Your task to perform on an android device: move an email to a new category in the gmail app Image 0: 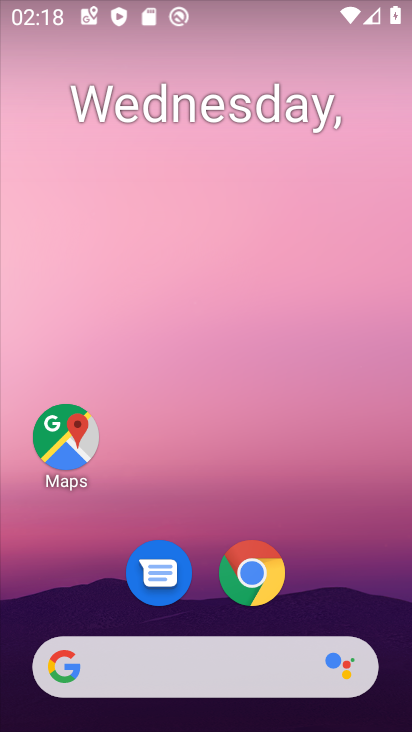
Step 0: drag from (319, 493) to (101, 4)
Your task to perform on an android device: move an email to a new category in the gmail app Image 1: 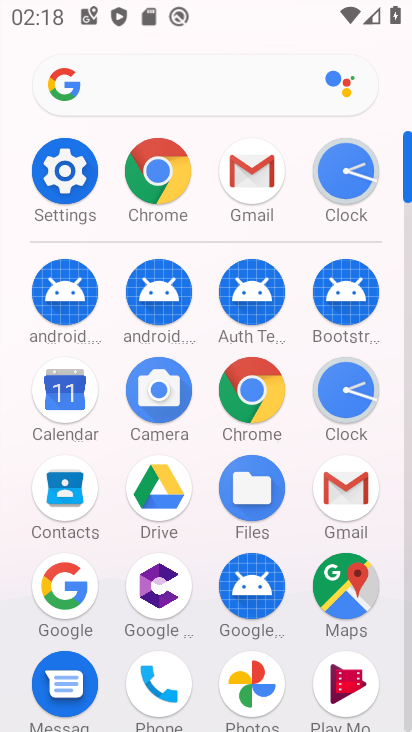
Step 1: click (251, 176)
Your task to perform on an android device: move an email to a new category in the gmail app Image 2: 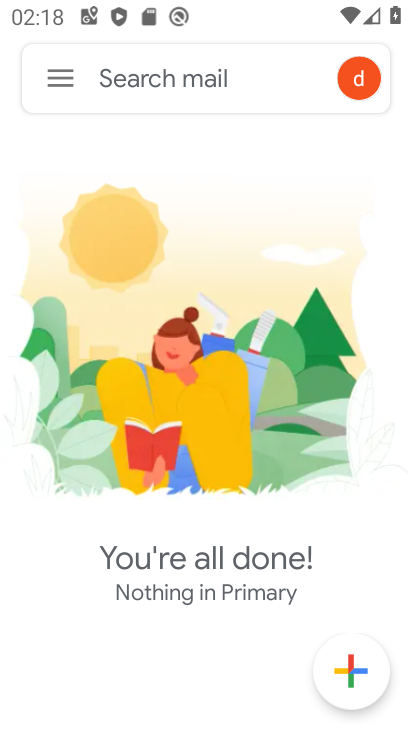
Step 2: click (61, 79)
Your task to perform on an android device: move an email to a new category in the gmail app Image 3: 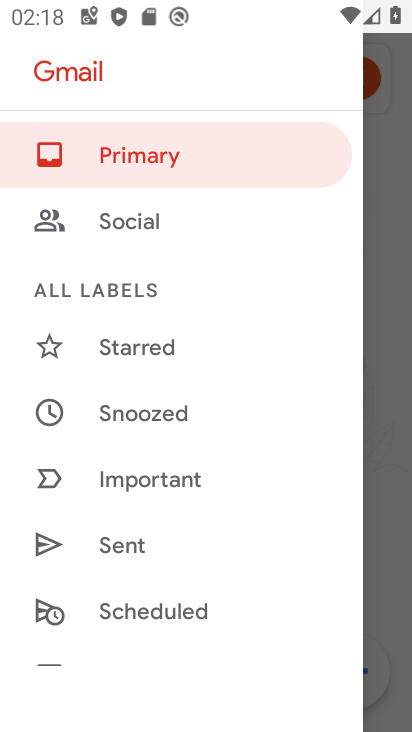
Step 3: drag from (175, 527) to (246, 347)
Your task to perform on an android device: move an email to a new category in the gmail app Image 4: 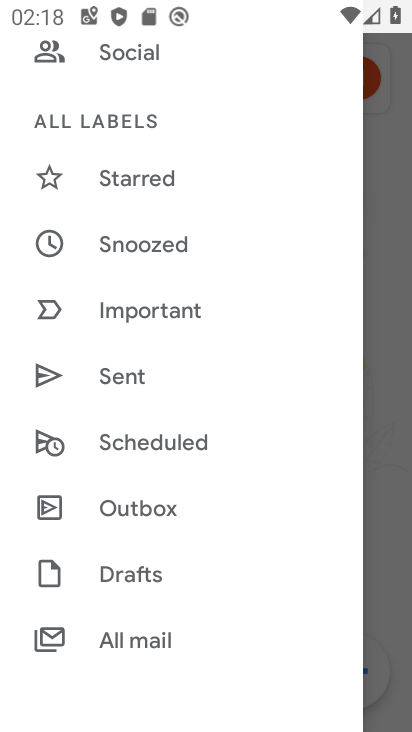
Step 4: drag from (163, 542) to (230, 386)
Your task to perform on an android device: move an email to a new category in the gmail app Image 5: 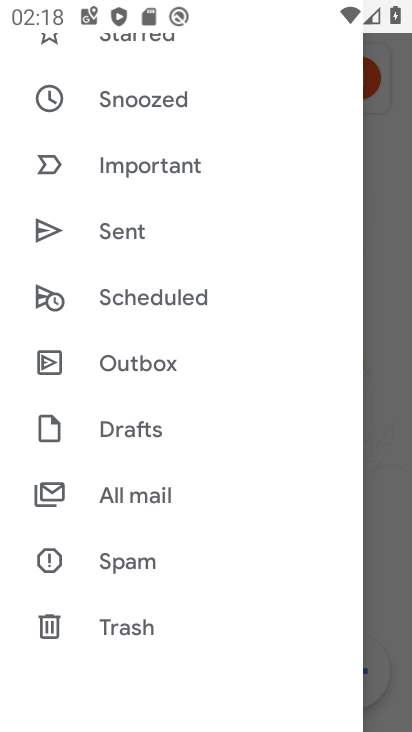
Step 5: drag from (168, 534) to (198, 431)
Your task to perform on an android device: move an email to a new category in the gmail app Image 6: 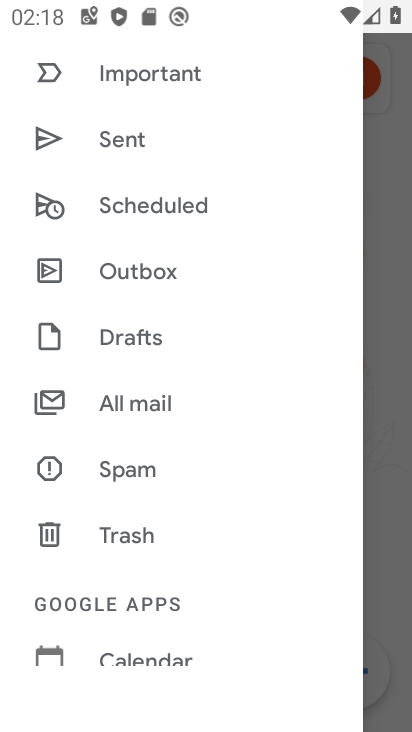
Step 6: drag from (180, 538) to (257, 388)
Your task to perform on an android device: move an email to a new category in the gmail app Image 7: 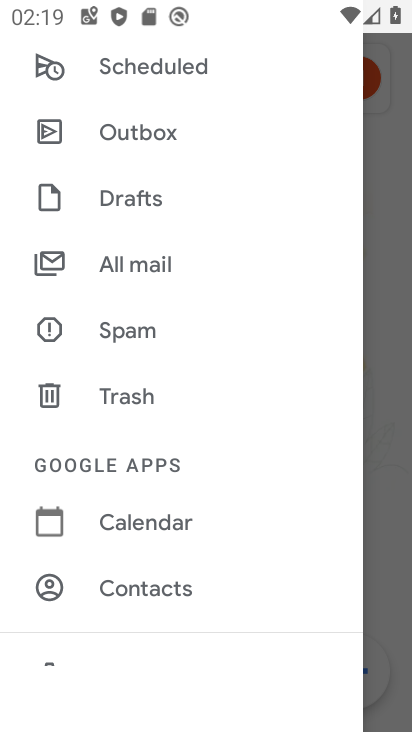
Step 7: click (164, 273)
Your task to perform on an android device: move an email to a new category in the gmail app Image 8: 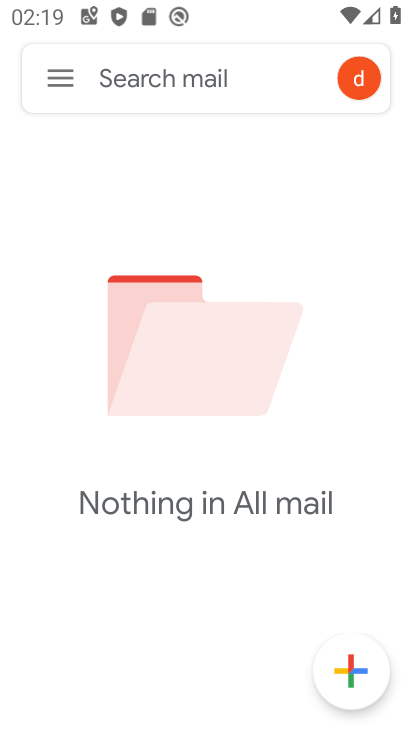
Step 8: click (72, 73)
Your task to perform on an android device: move an email to a new category in the gmail app Image 9: 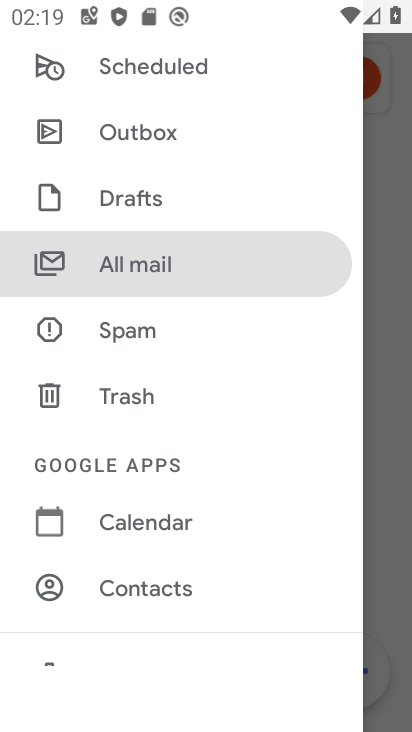
Step 9: task complete